Your task to perform on an android device: Open eBay Image 0: 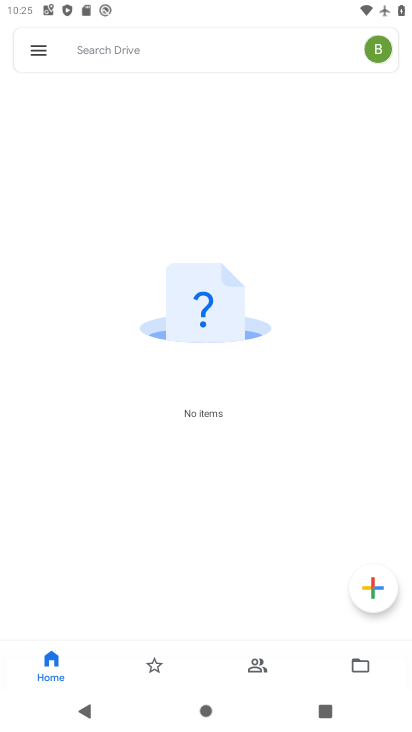
Step 0: press home button
Your task to perform on an android device: Open eBay Image 1: 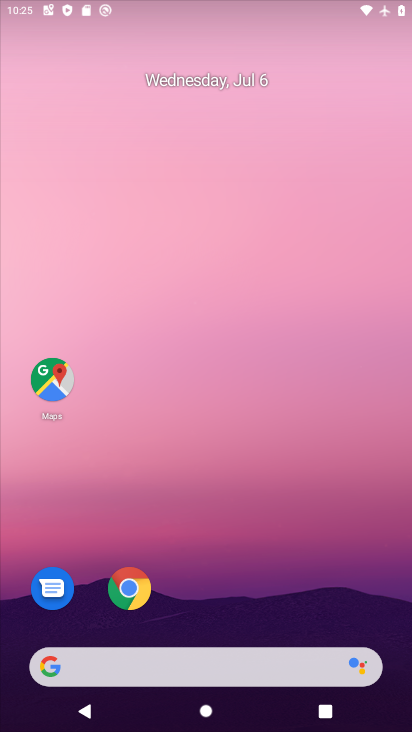
Step 1: drag from (236, 608) to (232, 224)
Your task to perform on an android device: Open eBay Image 2: 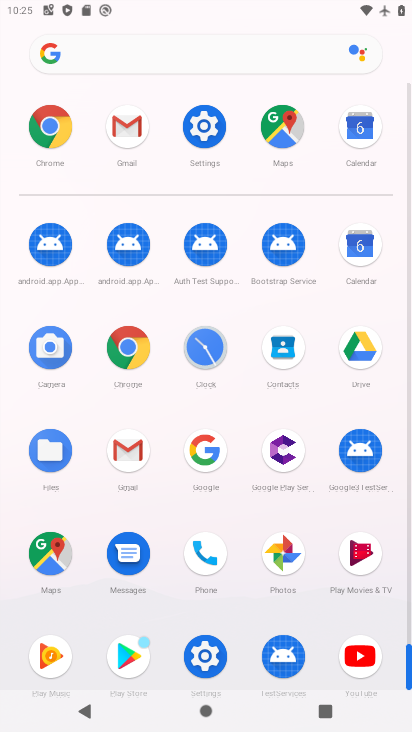
Step 2: click (112, 348)
Your task to perform on an android device: Open eBay Image 3: 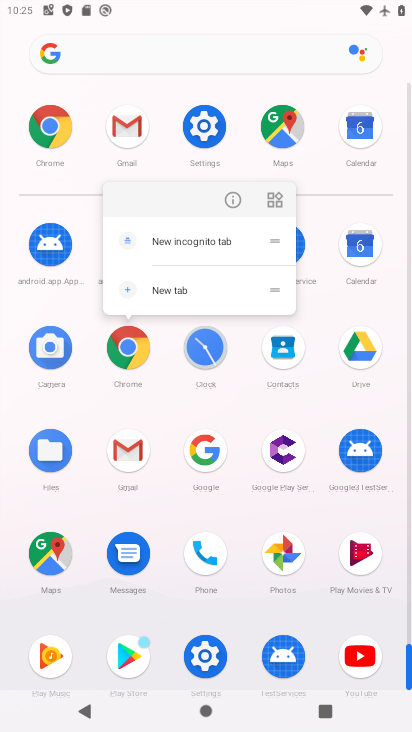
Step 3: click (146, 346)
Your task to perform on an android device: Open eBay Image 4: 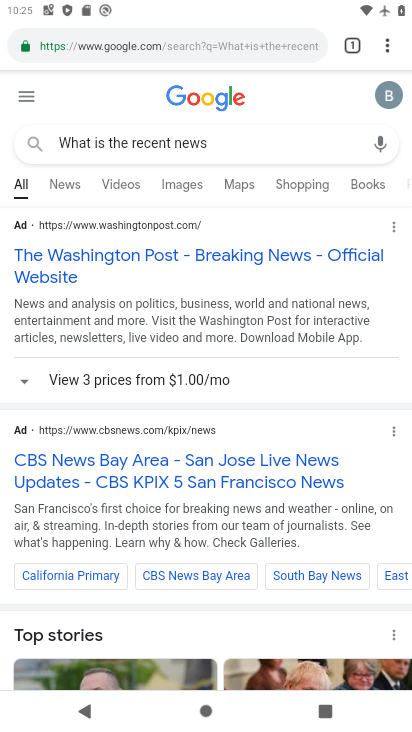
Step 4: click (383, 45)
Your task to perform on an android device: Open eBay Image 5: 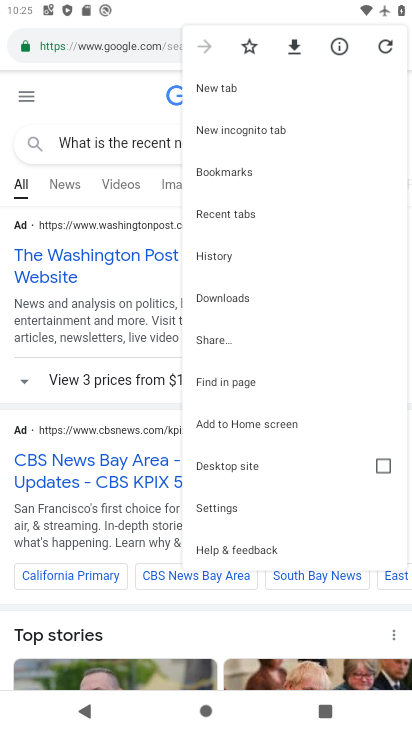
Step 5: click (212, 93)
Your task to perform on an android device: Open eBay Image 6: 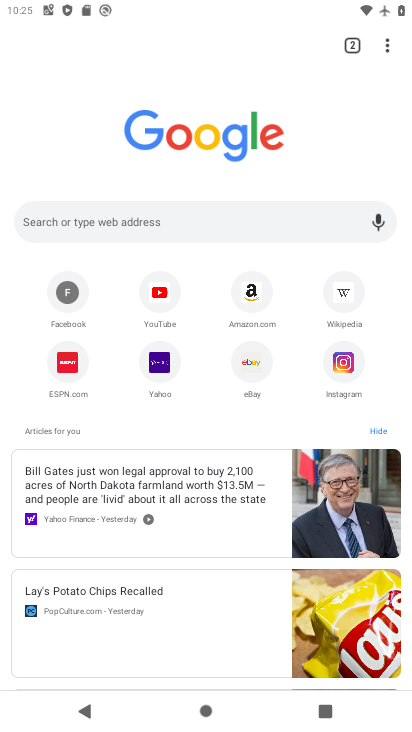
Step 6: click (237, 357)
Your task to perform on an android device: Open eBay Image 7: 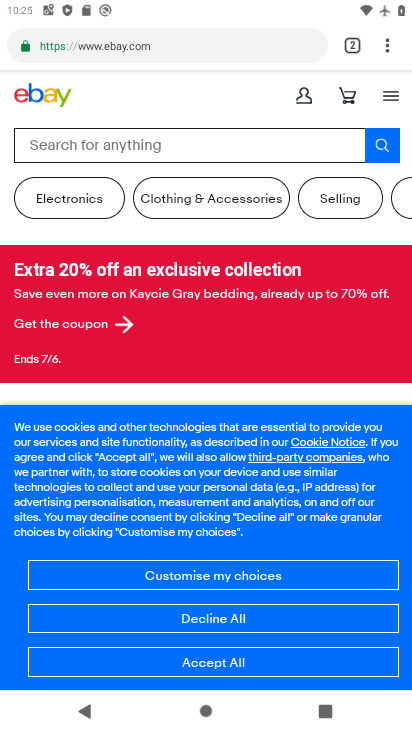
Step 7: task complete